Your task to perform on an android device: open chrome privacy settings Image 0: 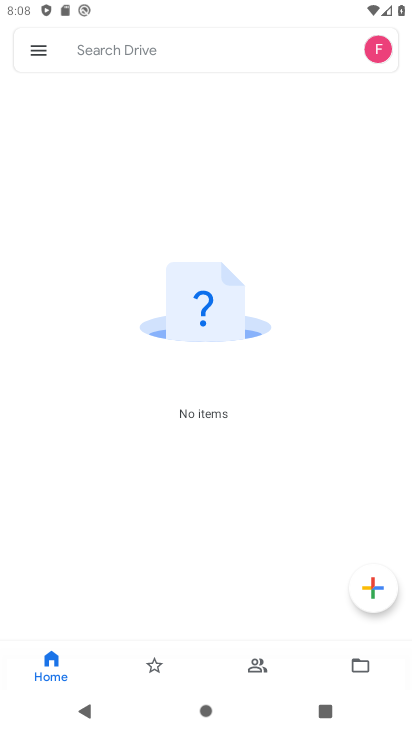
Step 0: press home button
Your task to perform on an android device: open chrome privacy settings Image 1: 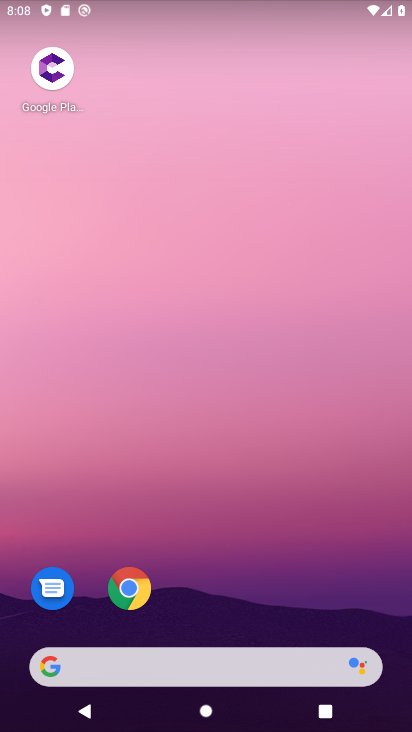
Step 1: click (135, 598)
Your task to perform on an android device: open chrome privacy settings Image 2: 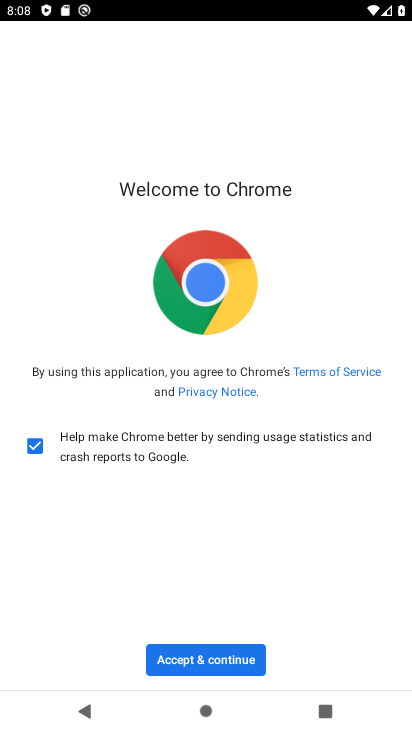
Step 2: click (185, 664)
Your task to perform on an android device: open chrome privacy settings Image 3: 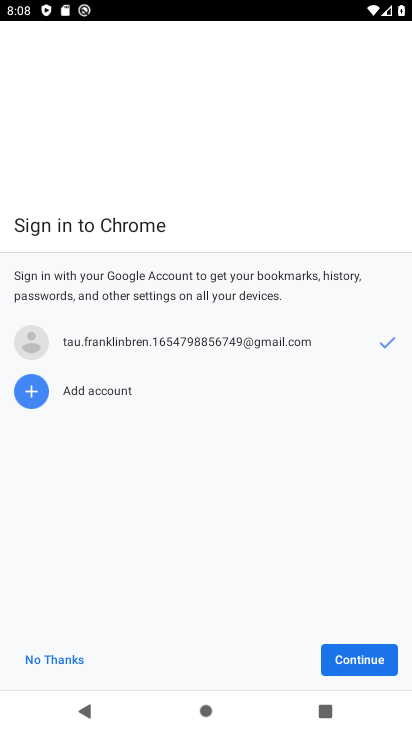
Step 3: click (66, 661)
Your task to perform on an android device: open chrome privacy settings Image 4: 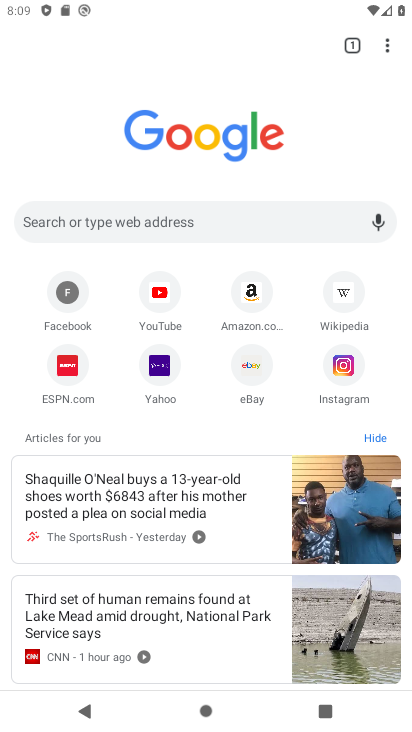
Step 4: drag from (387, 51) to (238, 382)
Your task to perform on an android device: open chrome privacy settings Image 5: 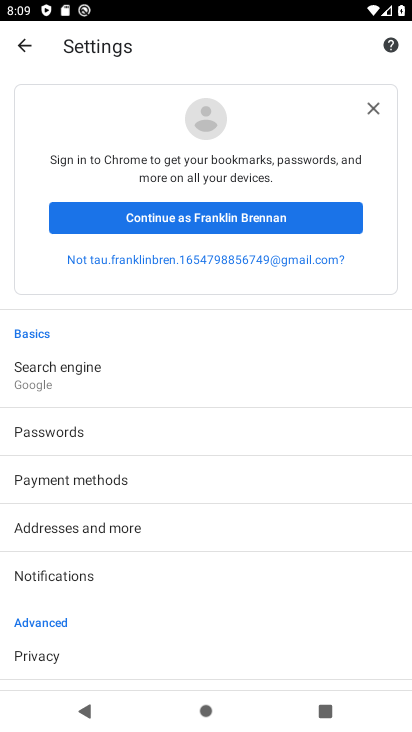
Step 5: click (40, 650)
Your task to perform on an android device: open chrome privacy settings Image 6: 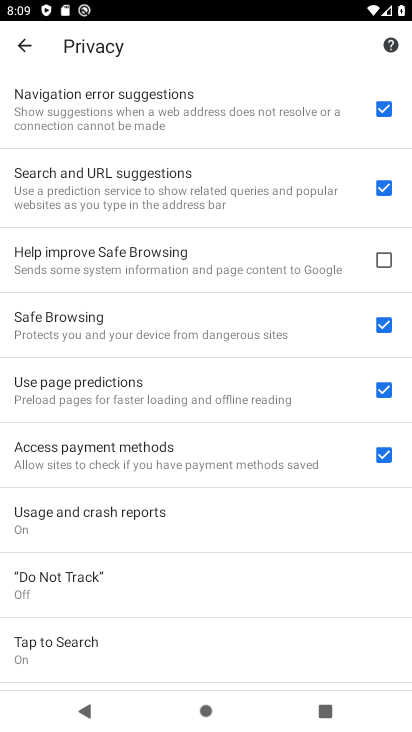
Step 6: task complete